Your task to perform on an android device: turn on the 12-hour format for clock Image 0: 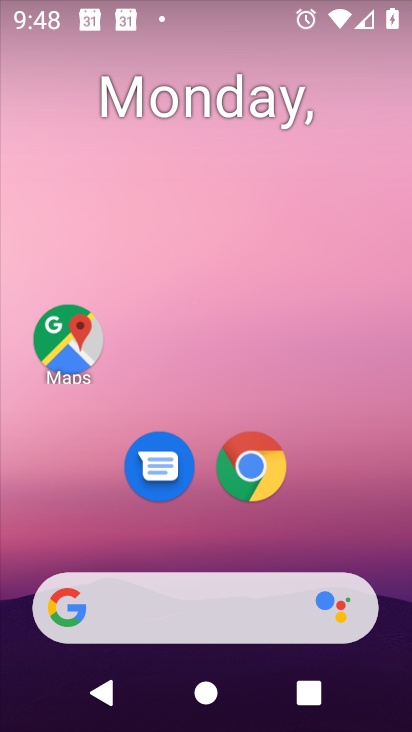
Step 0: drag from (351, 563) to (196, 109)
Your task to perform on an android device: turn on the 12-hour format for clock Image 1: 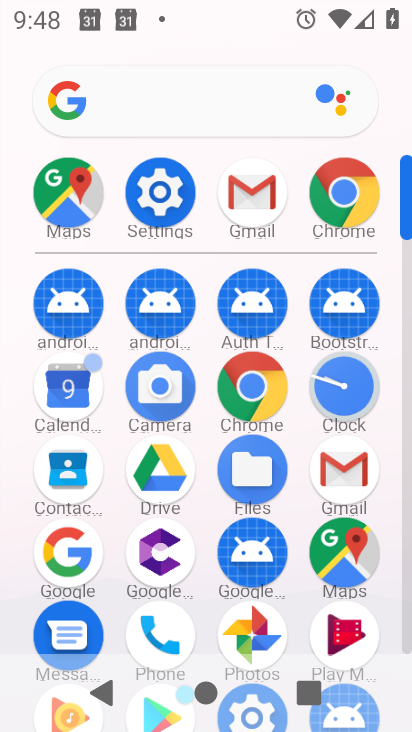
Step 1: click (353, 381)
Your task to perform on an android device: turn on the 12-hour format for clock Image 2: 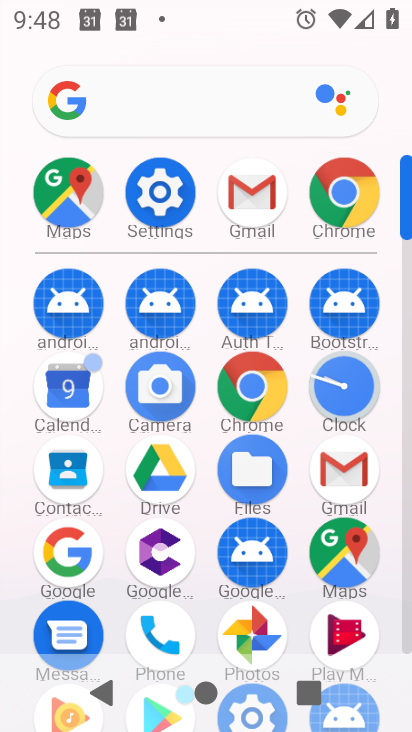
Step 2: click (346, 381)
Your task to perform on an android device: turn on the 12-hour format for clock Image 3: 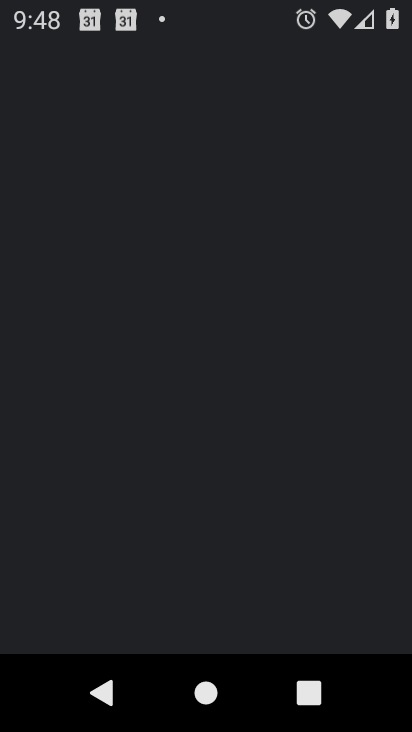
Step 3: click (346, 381)
Your task to perform on an android device: turn on the 12-hour format for clock Image 4: 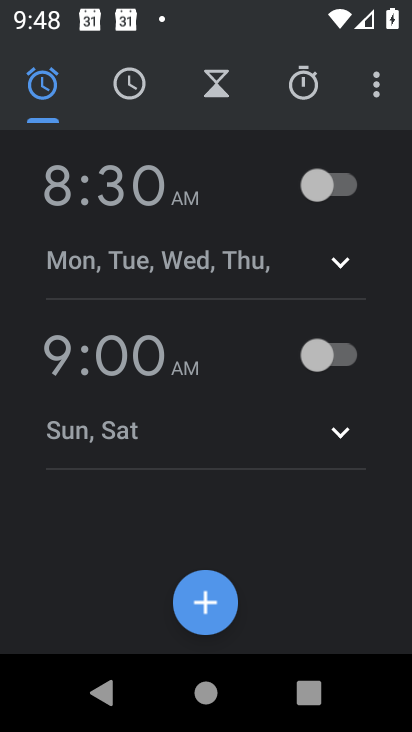
Step 4: click (372, 76)
Your task to perform on an android device: turn on the 12-hour format for clock Image 5: 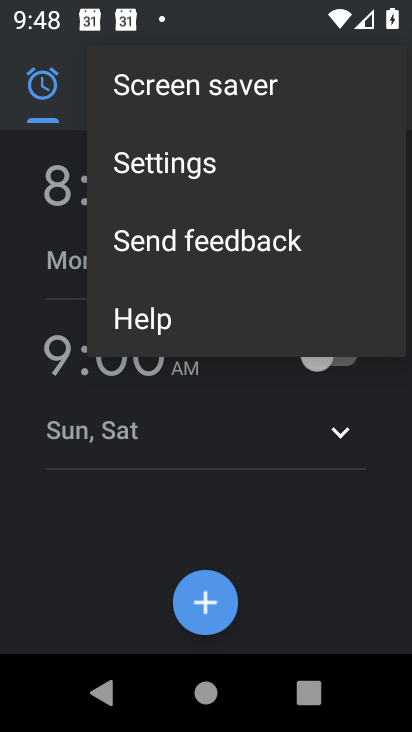
Step 5: click (160, 168)
Your task to perform on an android device: turn on the 12-hour format for clock Image 6: 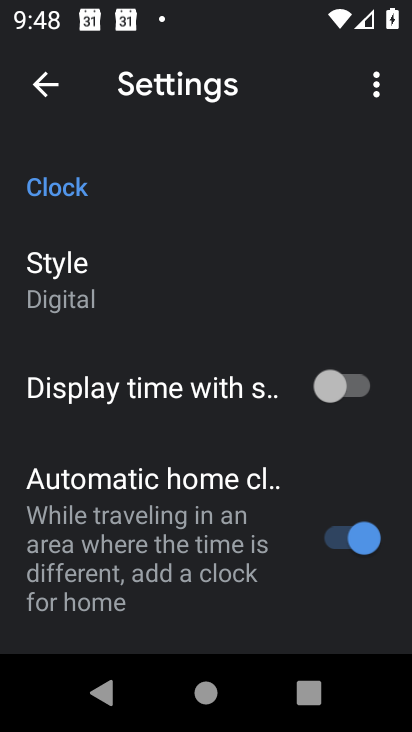
Step 6: drag from (231, 550) to (150, 110)
Your task to perform on an android device: turn on the 12-hour format for clock Image 7: 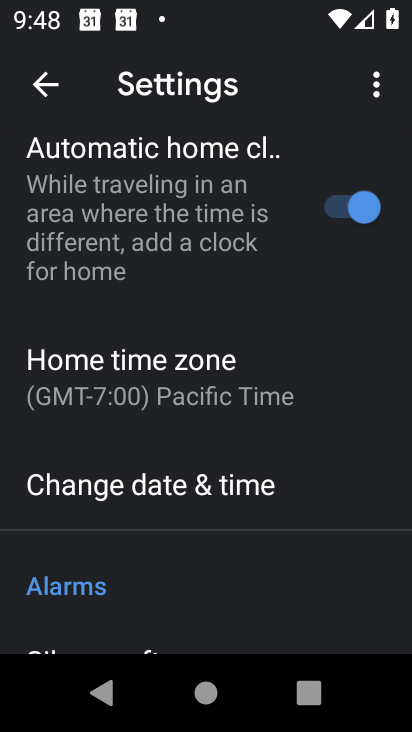
Step 7: drag from (203, 400) to (169, 113)
Your task to perform on an android device: turn on the 12-hour format for clock Image 8: 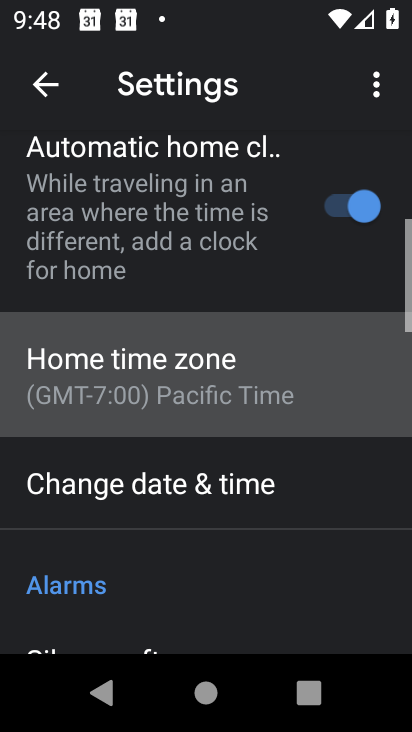
Step 8: drag from (216, 520) to (178, 2)
Your task to perform on an android device: turn on the 12-hour format for clock Image 9: 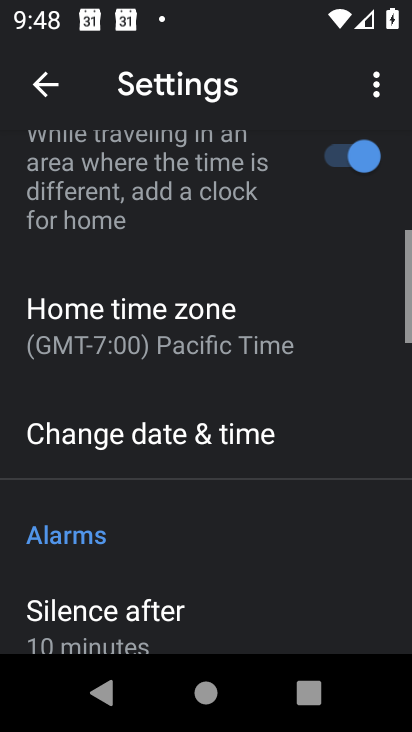
Step 9: drag from (217, 405) to (185, 100)
Your task to perform on an android device: turn on the 12-hour format for clock Image 10: 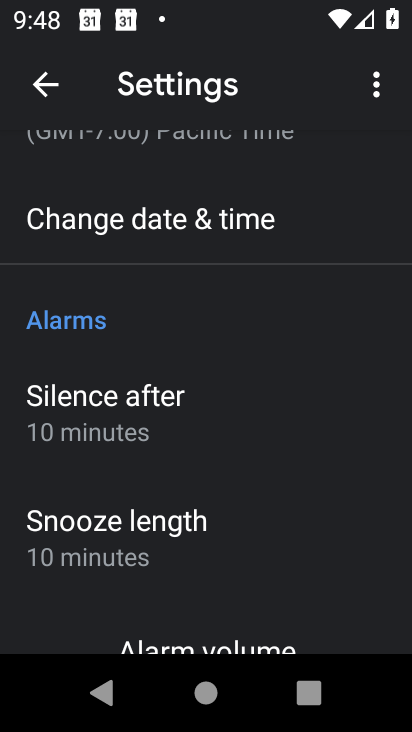
Step 10: drag from (184, 487) to (136, 97)
Your task to perform on an android device: turn on the 12-hour format for clock Image 11: 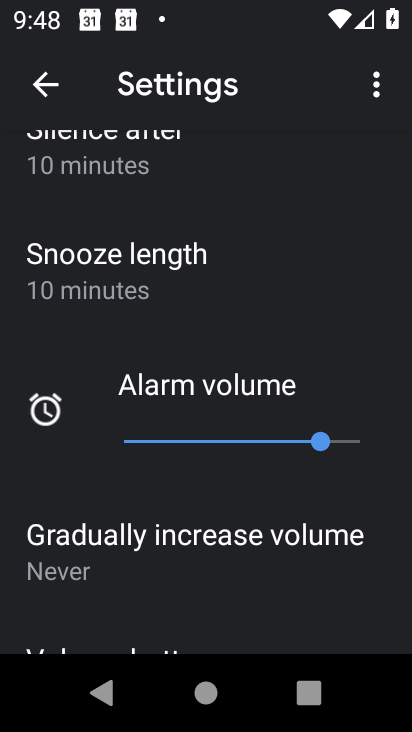
Step 11: drag from (114, 378) to (74, 181)
Your task to perform on an android device: turn on the 12-hour format for clock Image 12: 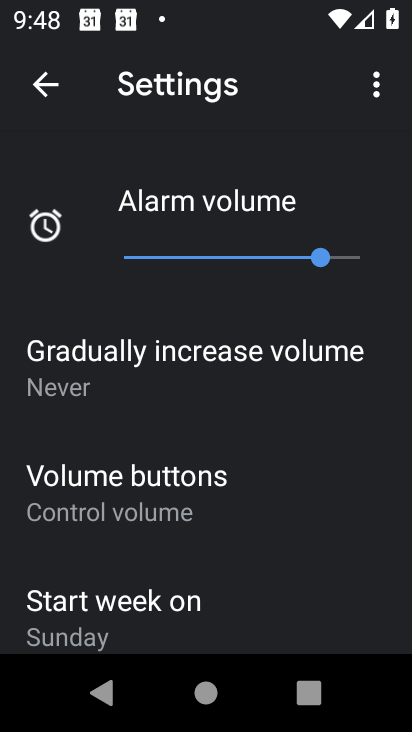
Step 12: drag from (220, 590) to (119, 192)
Your task to perform on an android device: turn on the 12-hour format for clock Image 13: 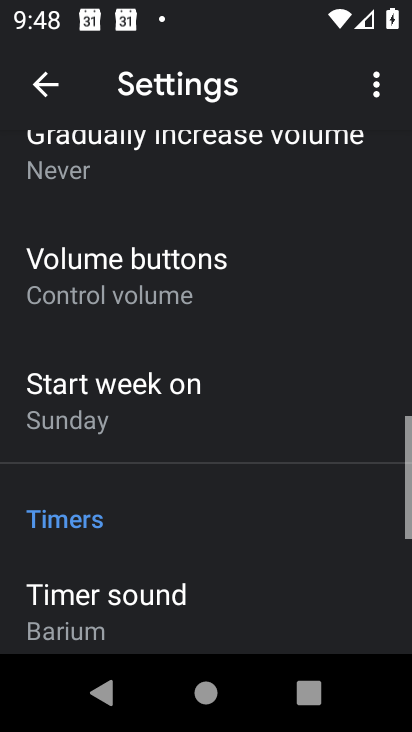
Step 13: drag from (172, 428) to (172, 87)
Your task to perform on an android device: turn on the 12-hour format for clock Image 14: 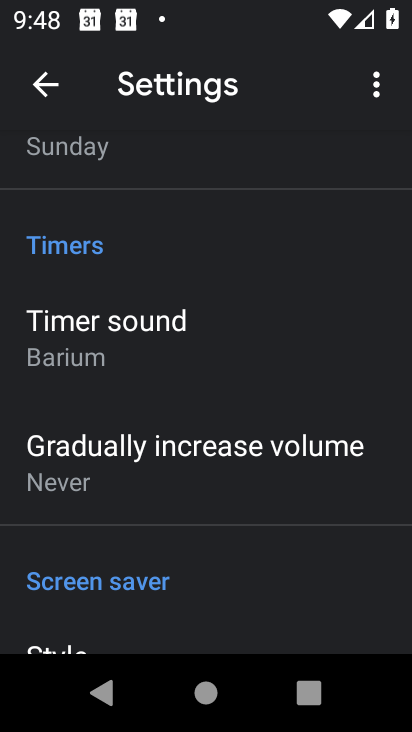
Step 14: drag from (128, 211) to (171, 651)
Your task to perform on an android device: turn on the 12-hour format for clock Image 15: 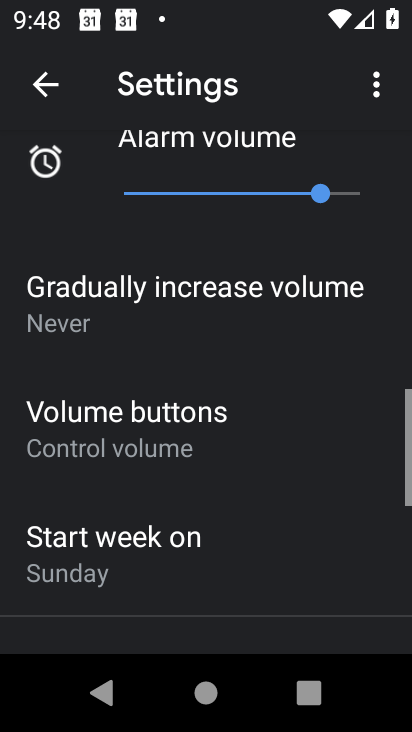
Step 15: drag from (127, 282) to (195, 518)
Your task to perform on an android device: turn on the 12-hour format for clock Image 16: 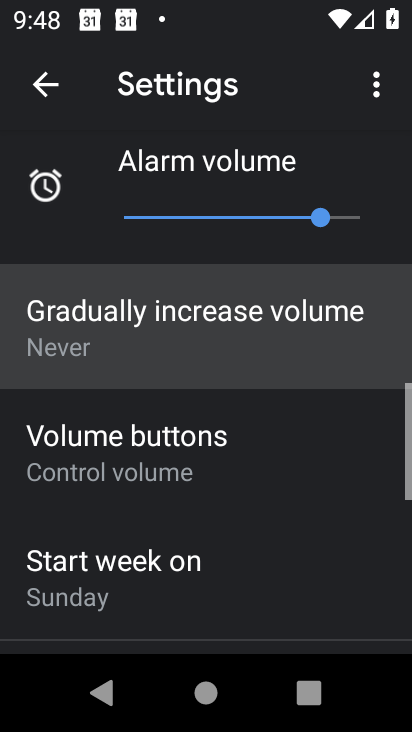
Step 16: drag from (176, 247) to (220, 468)
Your task to perform on an android device: turn on the 12-hour format for clock Image 17: 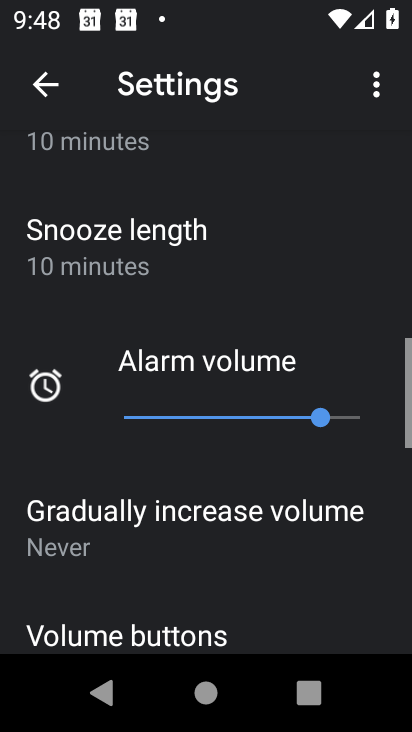
Step 17: drag from (180, 212) to (217, 471)
Your task to perform on an android device: turn on the 12-hour format for clock Image 18: 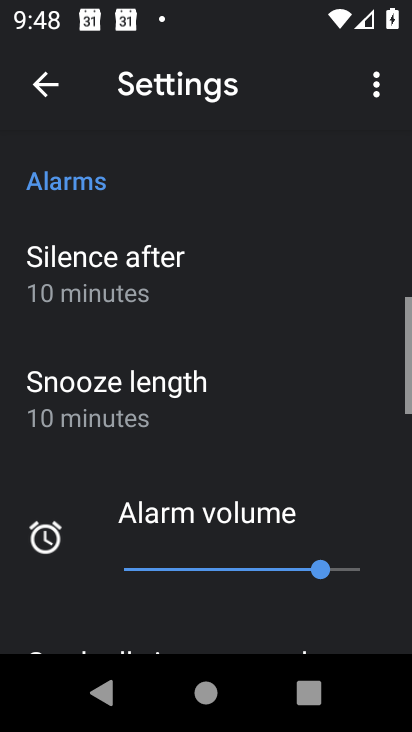
Step 18: drag from (167, 234) to (176, 481)
Your task to perform on an android device: turn on the 12-hour format for clock Image 19: 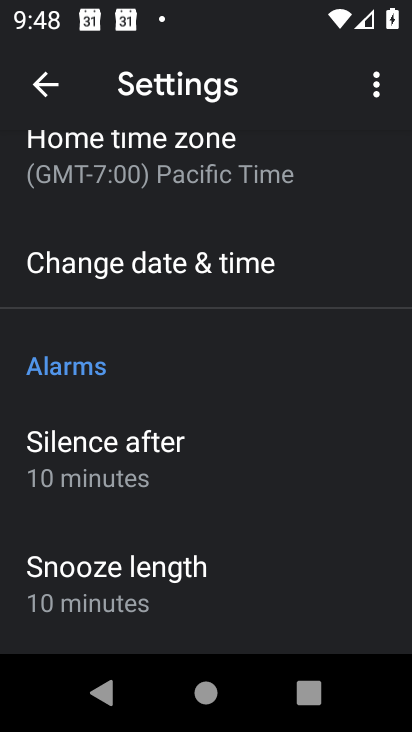
Step 19: click (180, 263)
Your task to perform on an android device: turn on the 12-hour format for clock Image 20: 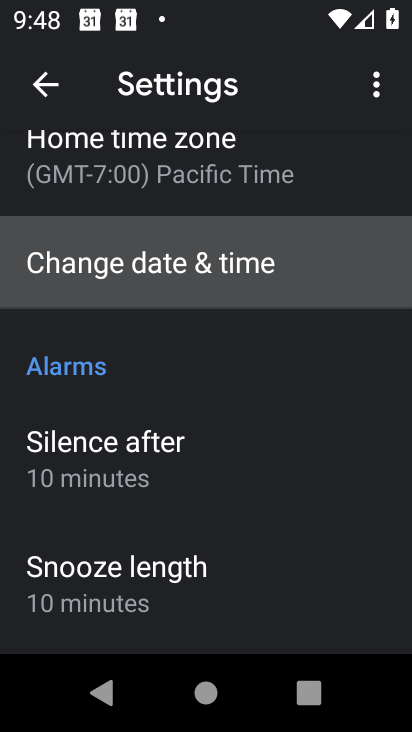
Step 20: click (181, 262)
Your task to perform on an android device: turn on the 12-hour format for clock Image 21: 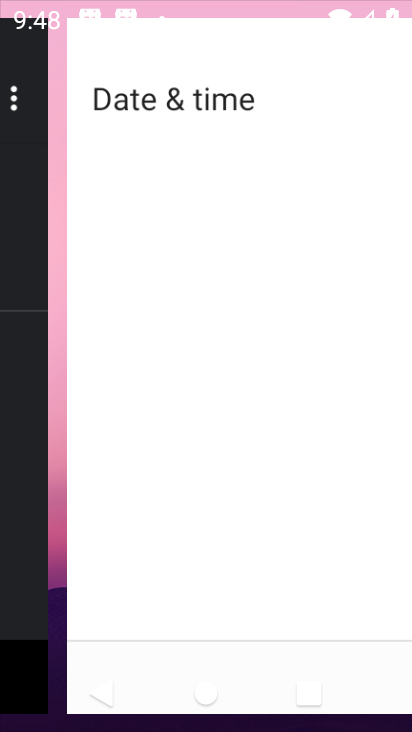
Step 21: click (181, 262)
Your task to perform on an android device: turn on the 12-hour format for clock Image 22: 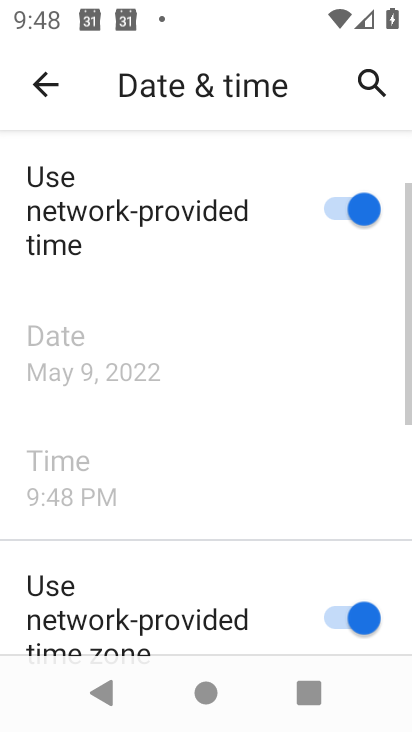
Step 22: drag from (181, 468) to (136, 102)
Your task to perform on an android device: turn on the 12-hour format for clock Image 23: 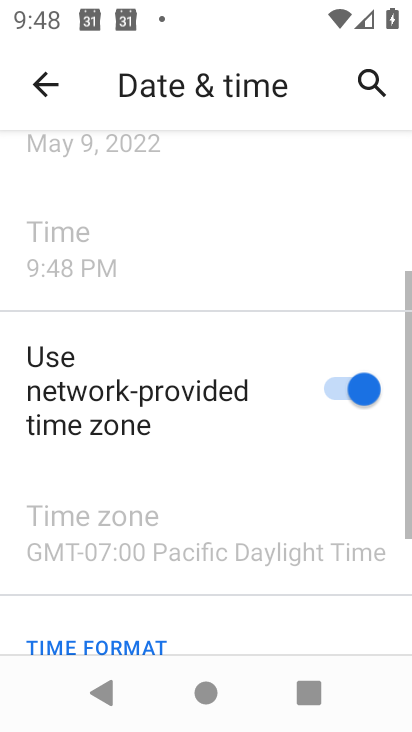
Step 23: drag from (182, 325) to (157, 135)
Your task to perform on an android device: turn on the 12-hour format for clock Image 24: 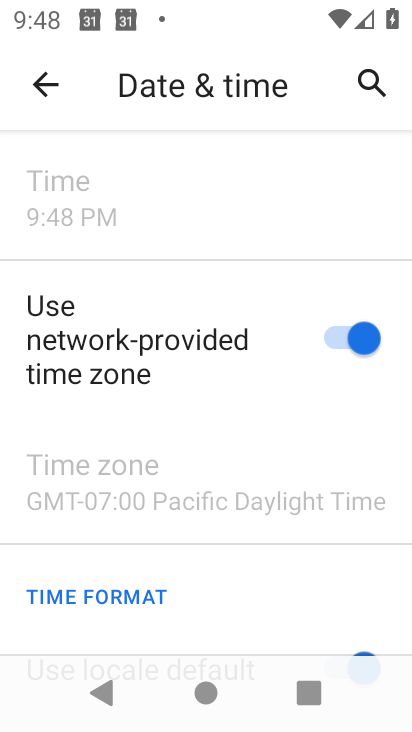
Step 24: click (170, 175)
Your task to perform on an android device: turn on the 12-hour format for clock Image 25: 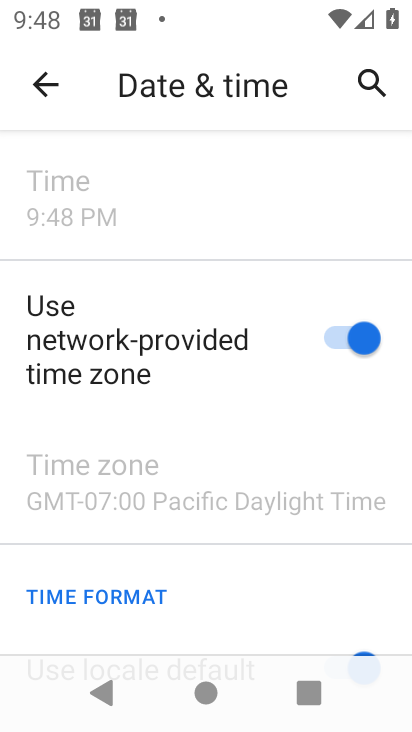
Step 25: task complete